Your task to perform on an android device: turn pop-ups on in chrome Image 0: 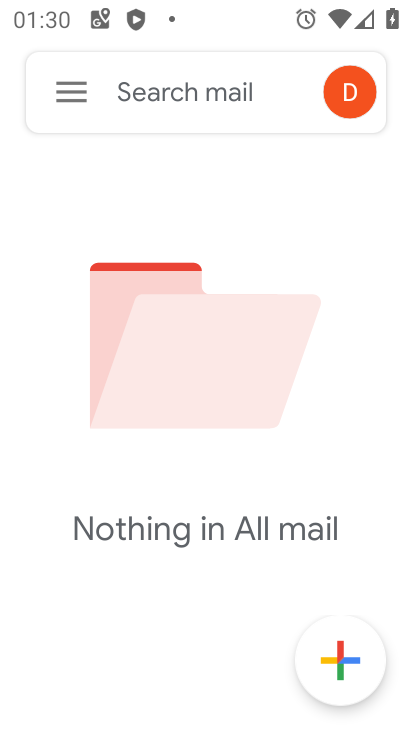
Step 0: press home button
Your task to perform on an android device: turn pop-ups on in chrome Image 1: 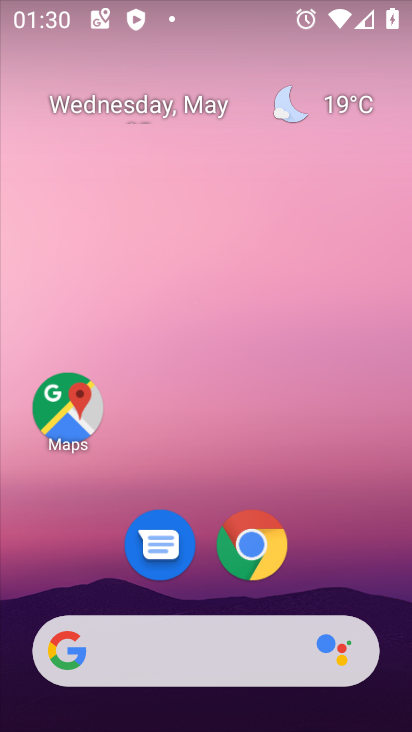
Step 1: click (254, 549)
Your task to perform on an android device: turn pop-ups on in chrome Image 2: 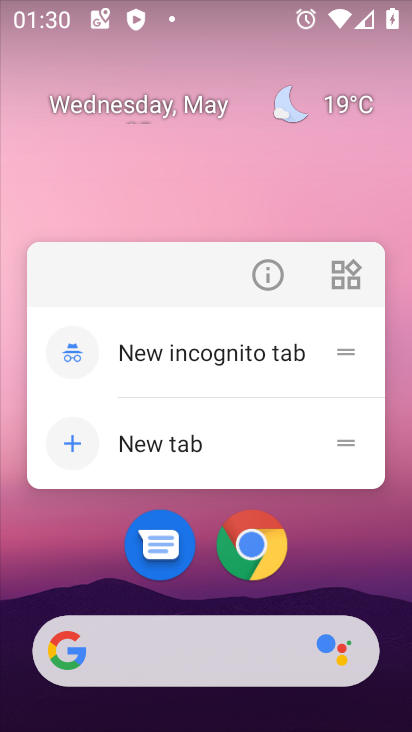
Step 2: click (255, 544)
Your task to perform on an android device: turn pop-ups on in chrome Image 3: 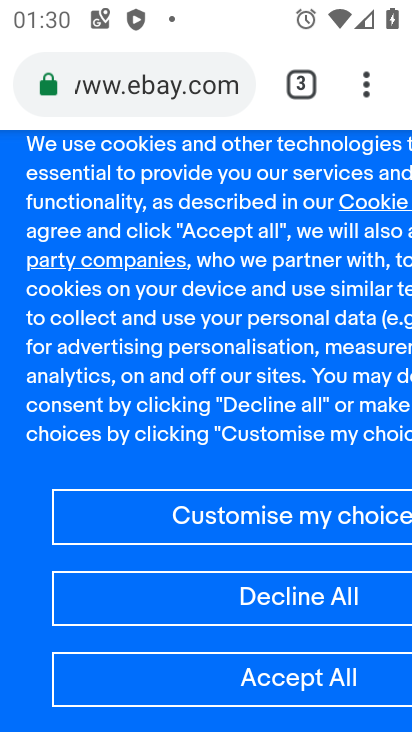
Step 3: drag from (373, 78) to (191, 552)
Your task to perform on an android device: turn pop-ups on in chrome Image 4: 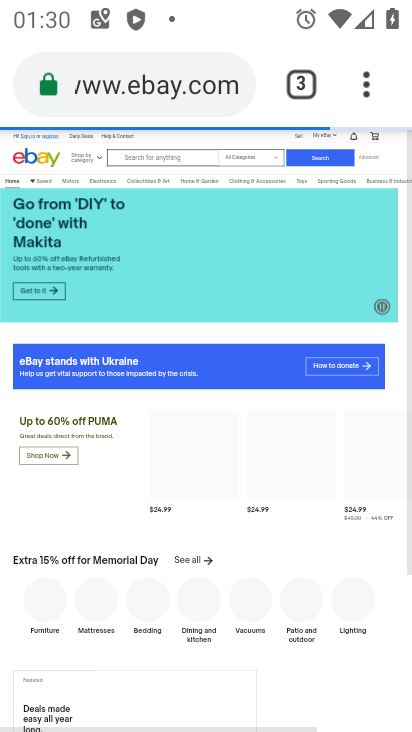
Step 4: drag from (368, 83) to (364, 514)
Your task to perform on an android device: turn pop-ups on in chrome Image 5: 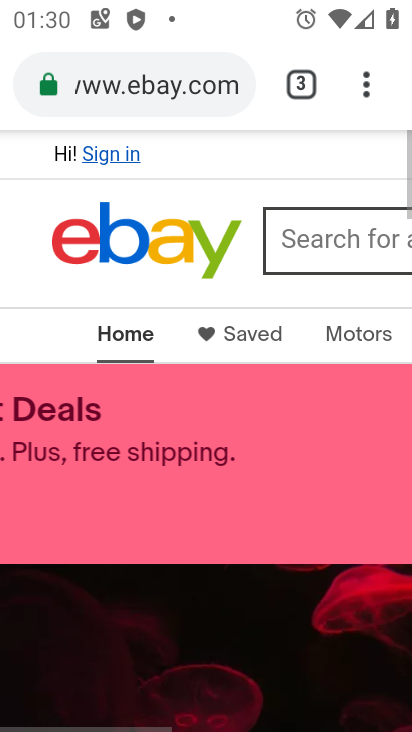
Step 5: drag from (367, 73) to (206, 573)
Your task to perform on an android device: turn pop-ups on in chrome Image 6: 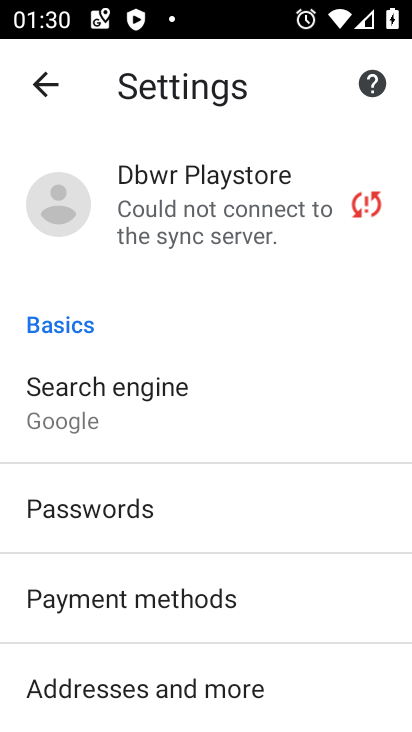
Step 6: drag from (179, 558) to (274, 89)
Your task to perform on an android device: turn pop-ups on in chrome Image 7: 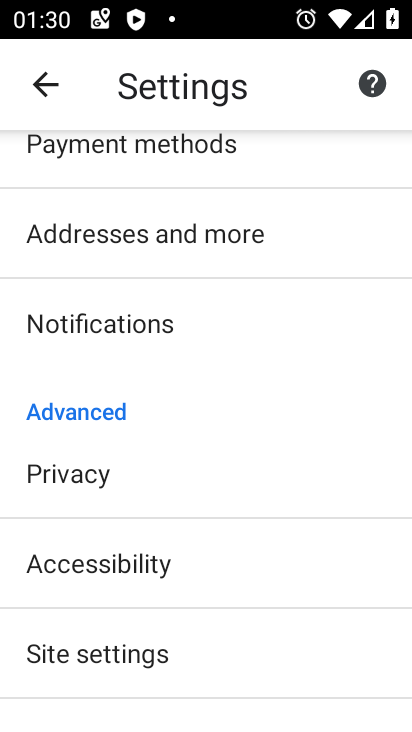
Step 7: click (79, 672)
Your task to perform on an android device: turn pop-ups on in chrome Image 8: 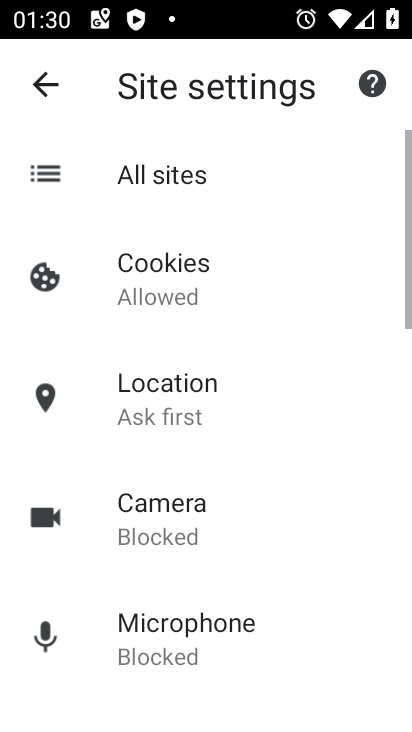
Step 8: drag from (126, 620) to (286, 121)
Your task to perform on an android device: turn pop-ups on in chrome Image 9: 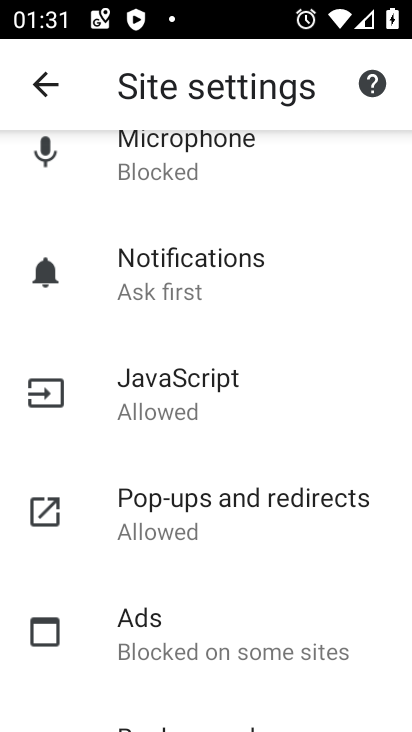
Step 9: click (205, 524)
Your task to perform on an android device: turn pop-ups on in chrome Image 10: 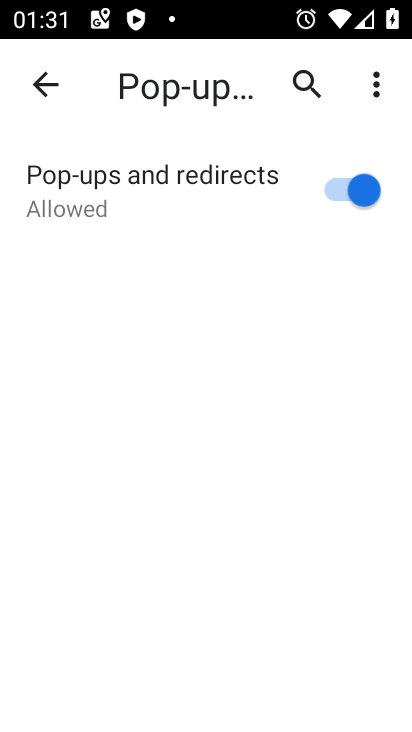
Step 10: task complete